Your task to perform on an android device: Do I have any events today? Image 0: 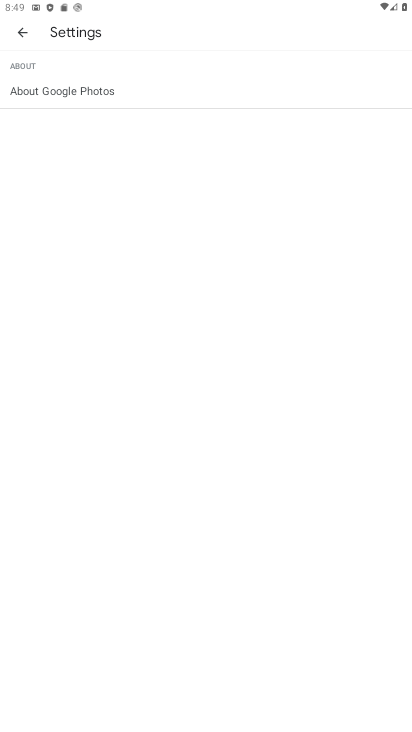
Step 0: press home button
Your task to perform on an android device: Do I have any events today? Image 1: 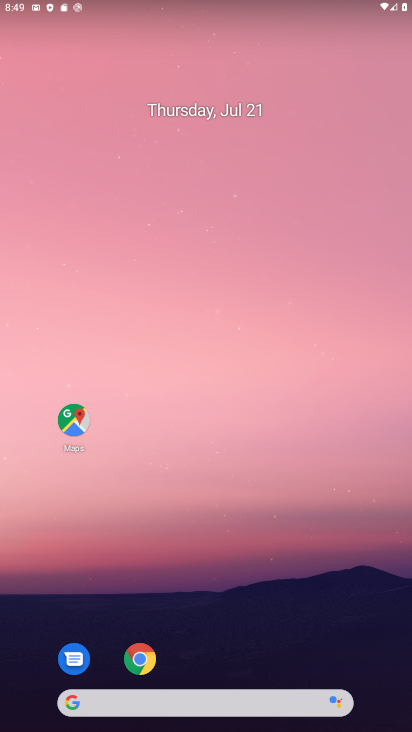
Step 1: drag from (192, 670) to (162, 40)
Your task to perform on an android device: Do I have any events today? Image 2: 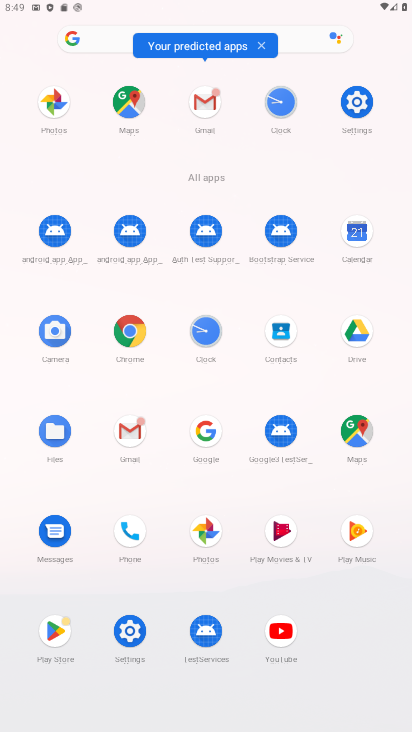
Step 2: click (358, 236)
Your task to perform on an android device: Do I have any events today? Image 3: 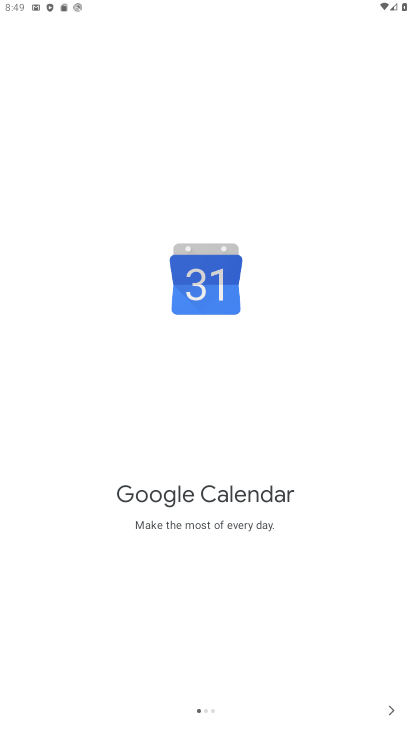
Step 3: click (397, 711)
Your task to perform on an android device: Do I have any events today? Image 4: 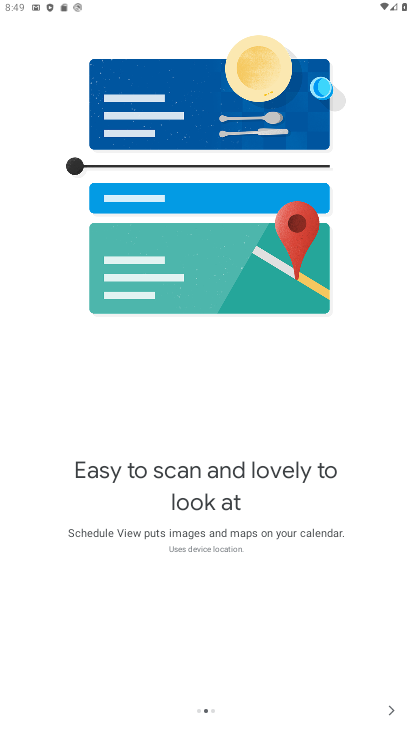
Step 4: click (398, 712)
Your task to perform on an android device: Do I have any events today? Image 5: 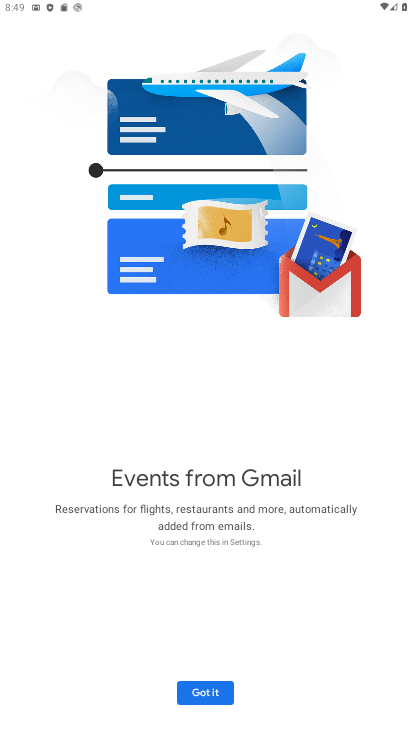
Step 5: click (197, 689)
Your task to perform on an android device: Do I have any events today? Image 6: 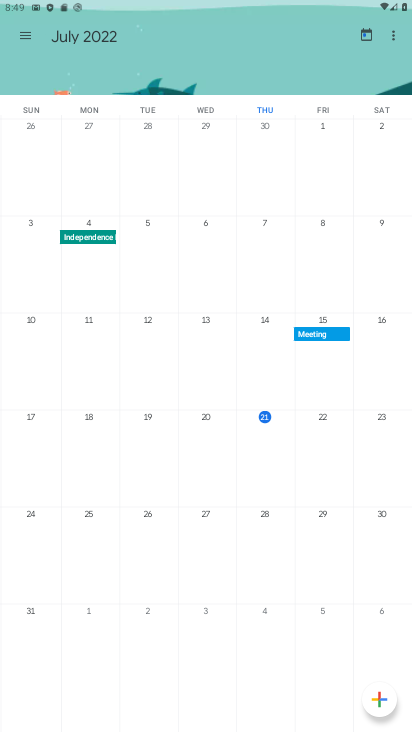
Step 6: click (260, 421)
Your task to perform on an android device: Do I have any events today? Image 7: 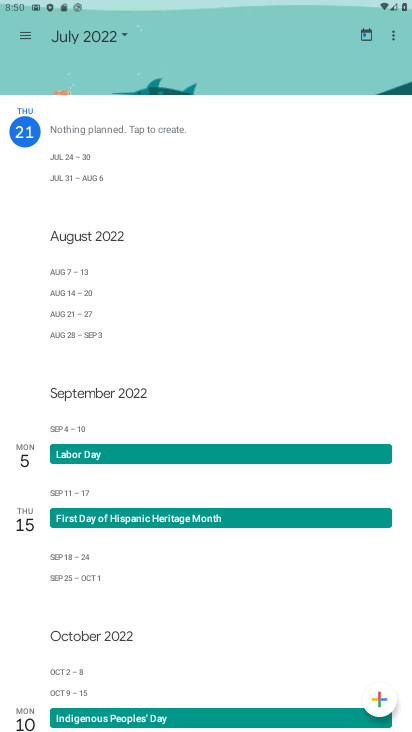
Step 7: task complete